Your task to perform on an android device: visit the assistant section in the google photos Image 0: 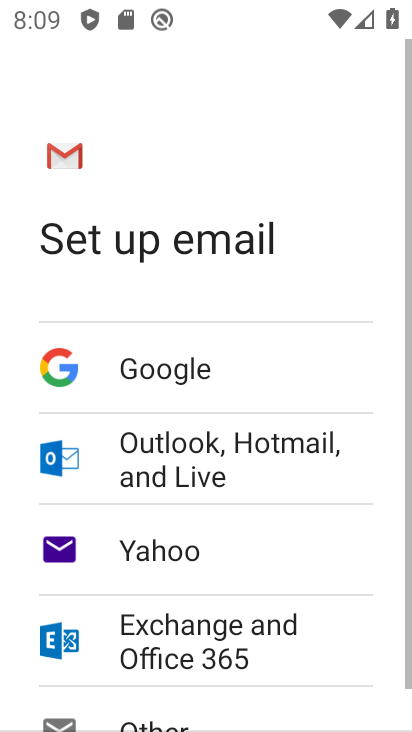
Step 0: press home button
Your task to perform on an android device: visit the assistant section in the google photos Image 1: 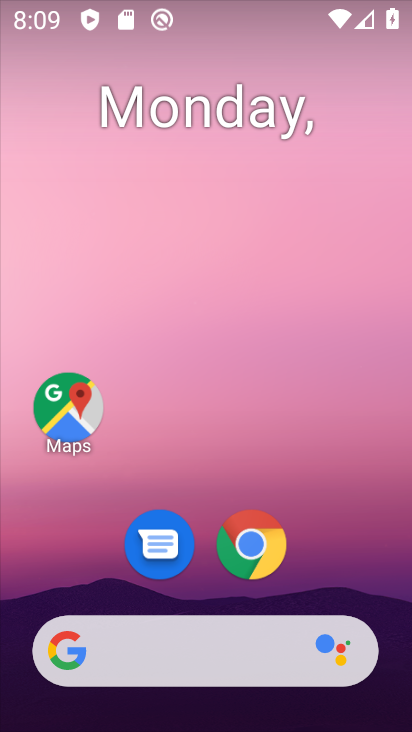
Step 1: drag from (224, 608) to (140, 54)
Your task to perform on an android device: visit the assistant section in the google photos Image 2: 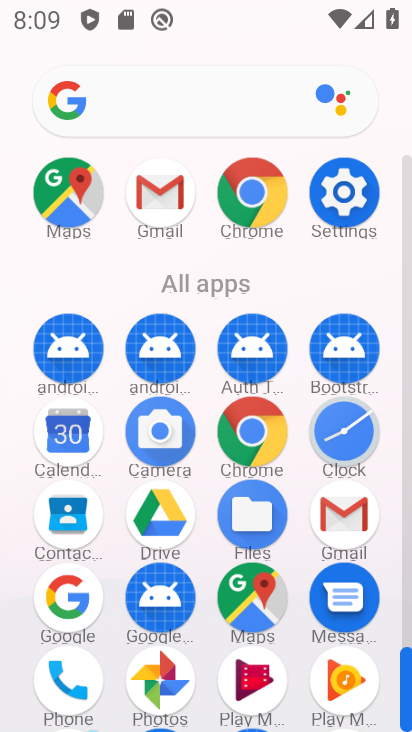
Step 2: click (155, 678)
Your task to perform on an android device: visit the assistant section in the google photos Image 3: 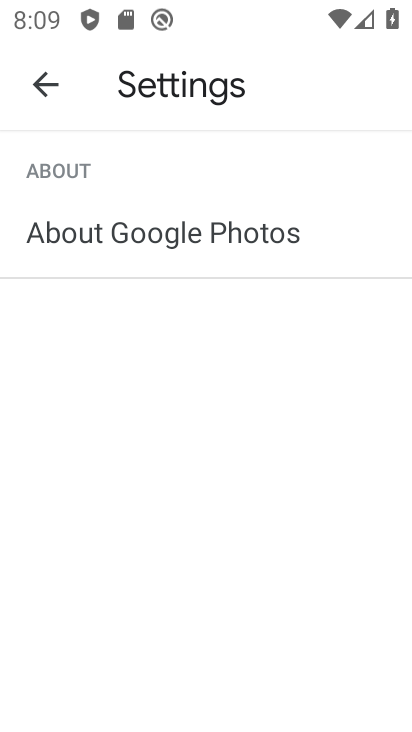
Step 3: click (33, 91)
Your task to perform on an android device: visit the assistant section in the google photos Image 4: 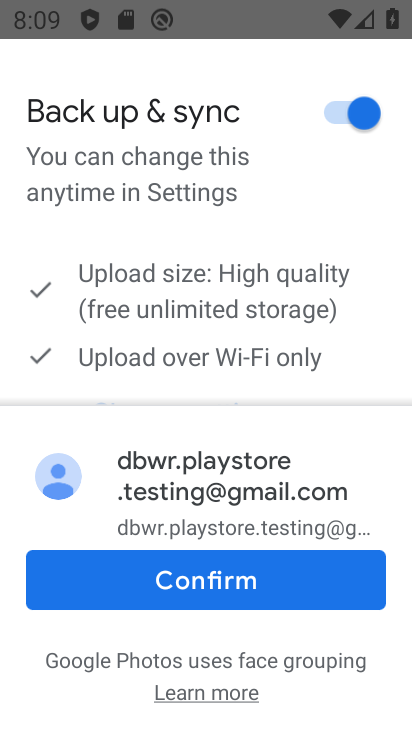
Step 4: click (193, 582)
Your task to perform on an android device: visit the assistant section in the google photos Image 5: 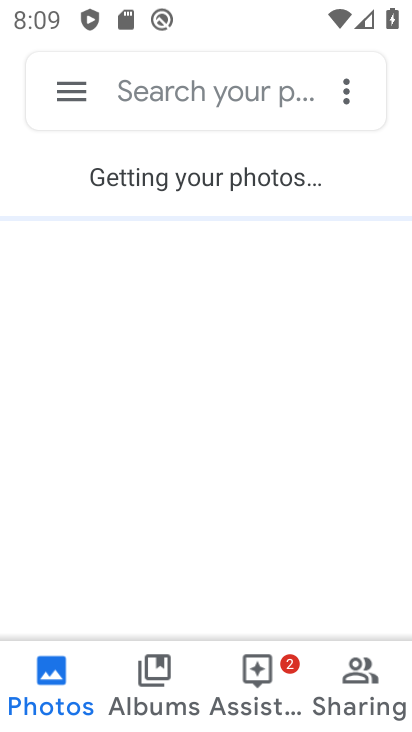
Step 5: click (237, 648)
Your task to perform on an android device: visit the assistant section in the google photos Image 6: 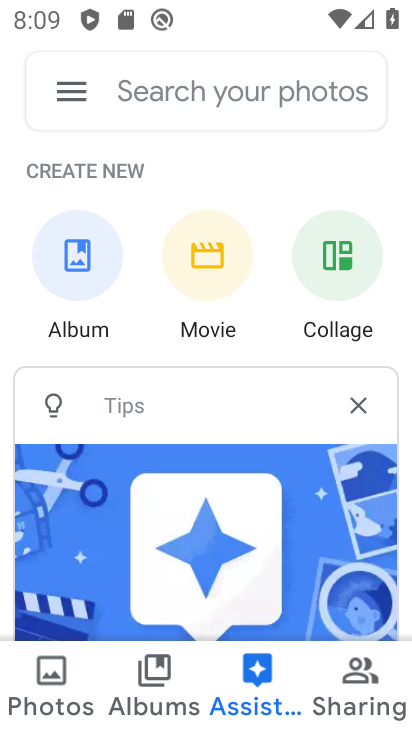
Step 6: task complete